Your task to perform on an android device: What's the weather today? Image 0: 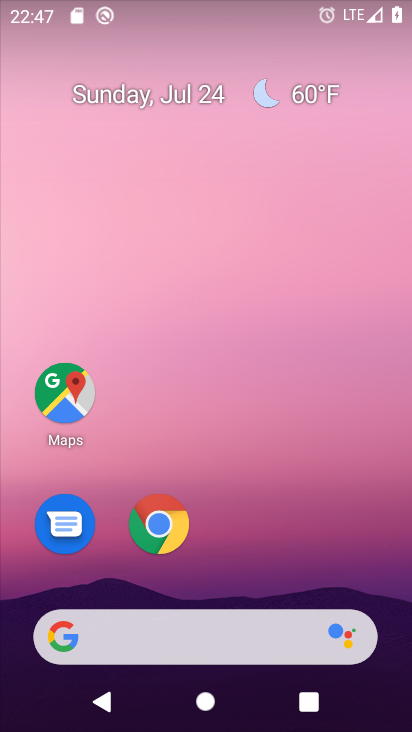
Step 0: click (211, 641)
Your task to perform on an android device: What's the weather today? Image 1: 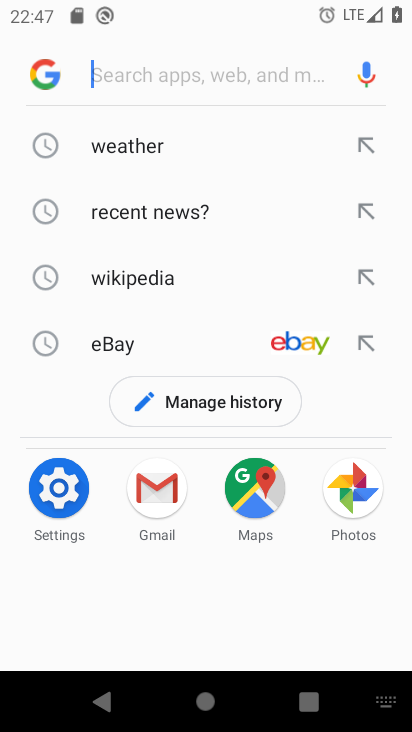
Step 1: click (144, 150)
Your task to perform on an android device: What's the weather today? Image 2: 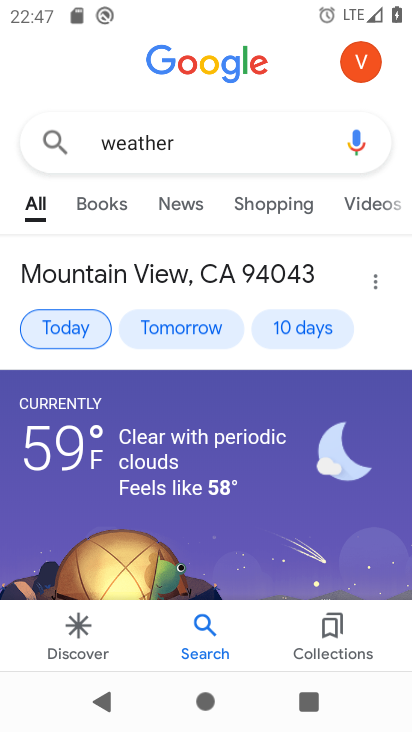
Step 2: click (74, 329)
Your task to perform on an android device: What's the weather today? Image 3: 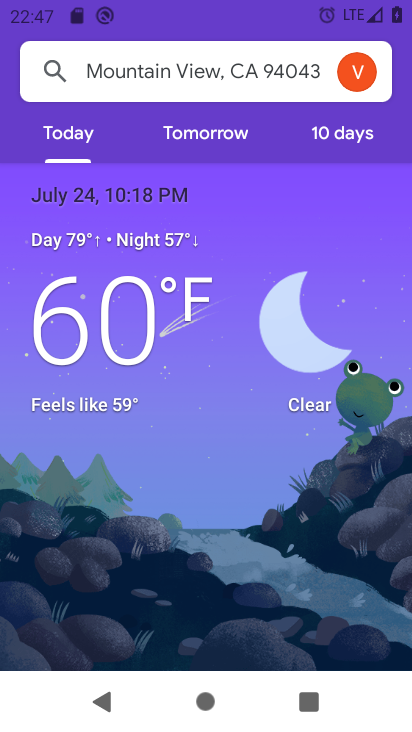
Step 3: drag from (168, 606) to (248, 0)
Your task to perform on an android device: What's the weather today? Image 4: 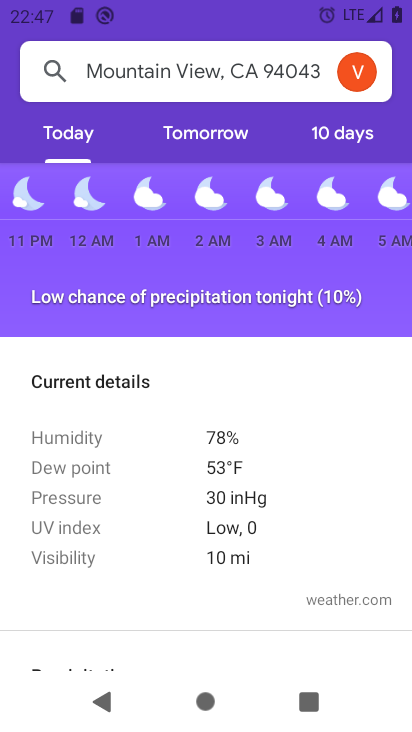
Step 4: drag from (199, 515) to (213, 2)
Your task to perform on an android device: What's the weather today? Image 5: 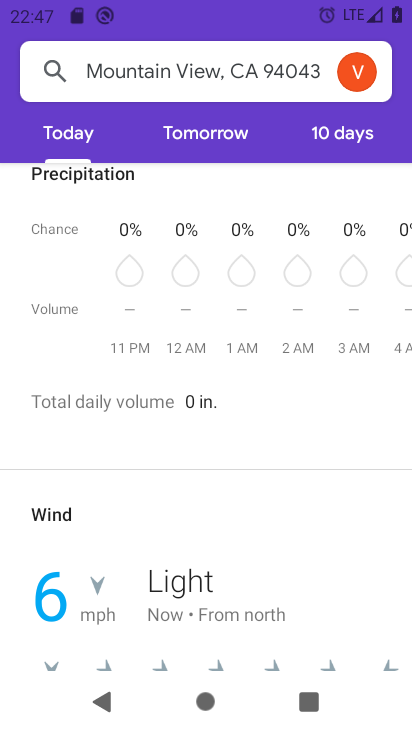
Step 5: drag from (224, 595) to (268, 170)
Your task to perform on an android device: What's the weather today? Image 6: 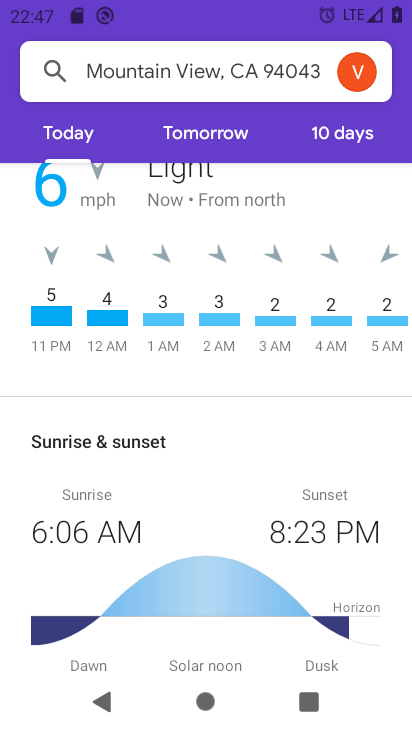
Step 6: drag from (268, 93) to (267, 42)
Your task to perform on an android device: What's the weather today? Image 7: 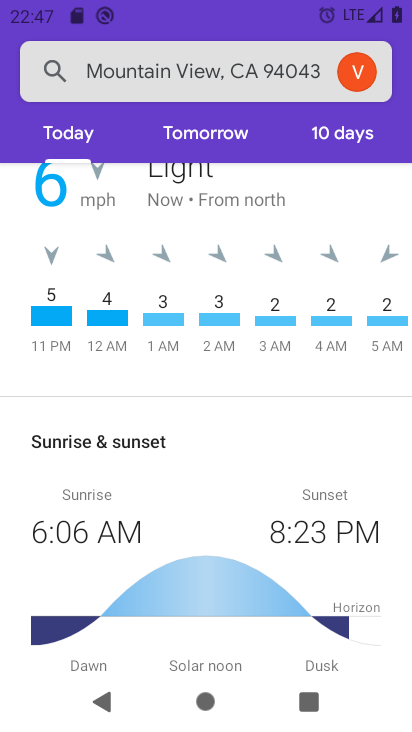
Step 7: click (267, 27)
Your task to perform on an android device: What's the weather today? Image 8: 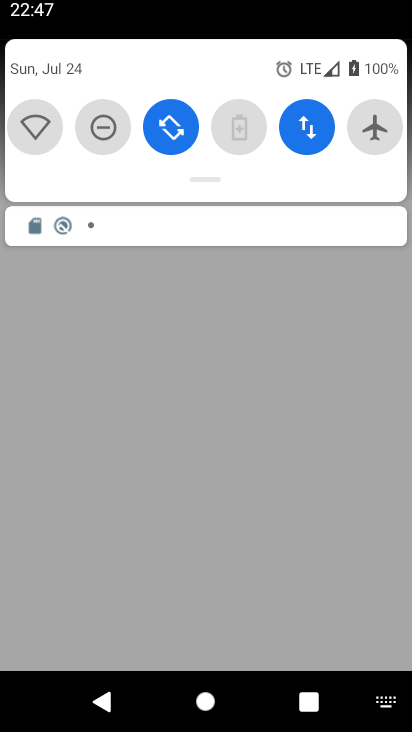
Step 8: task complete